Your task to perform on an android device: Is it going to rain today? Image 0: 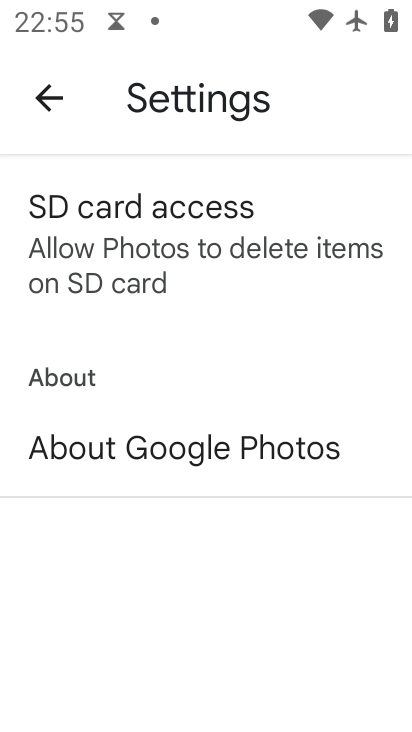
Step 0: press home button
Your task to perform on an android device: Is it going to rain today? Image 1: 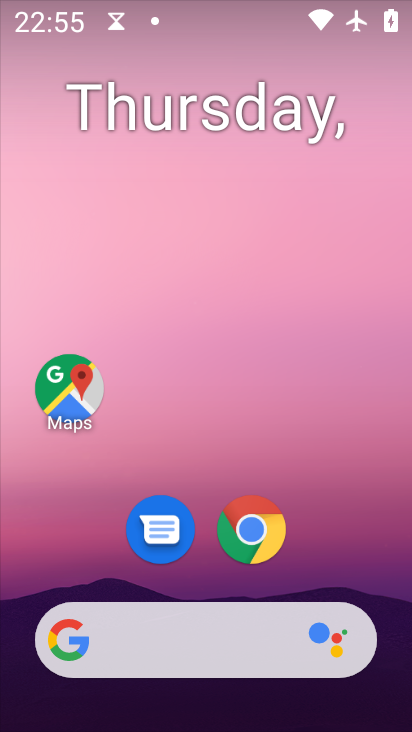
Step 1: click (201, 648)
Your task to perform on an android device: Is it going to rain today? Image 2: 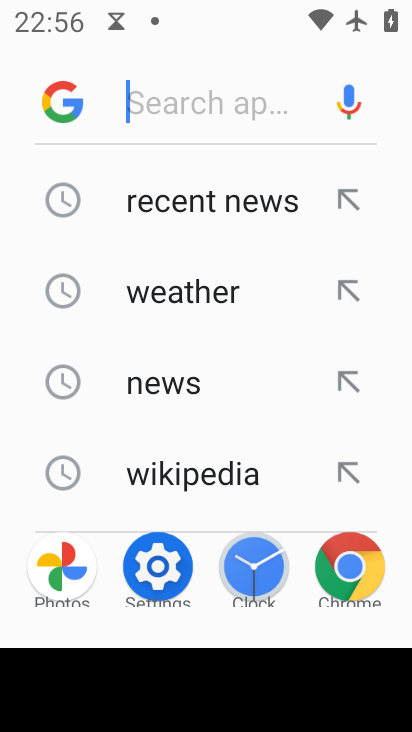
Step 2: type "is it going to rain today"
Your task to perform on an android device: Is it going to rain today? Image 3: 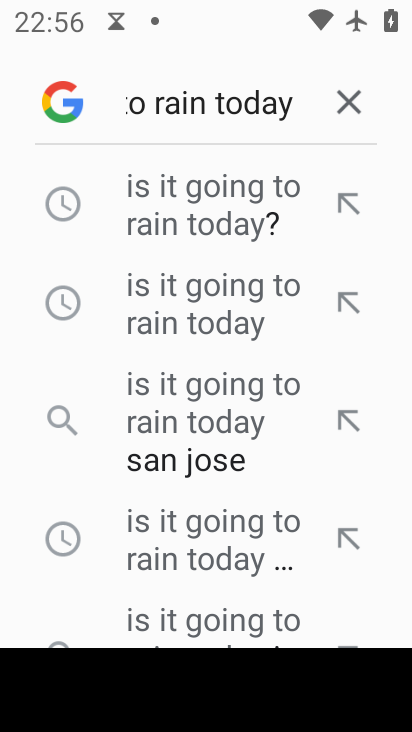
Step 3: click (181, 211)
Your task to perform on an android device: Is it going to rain today? Image 4: 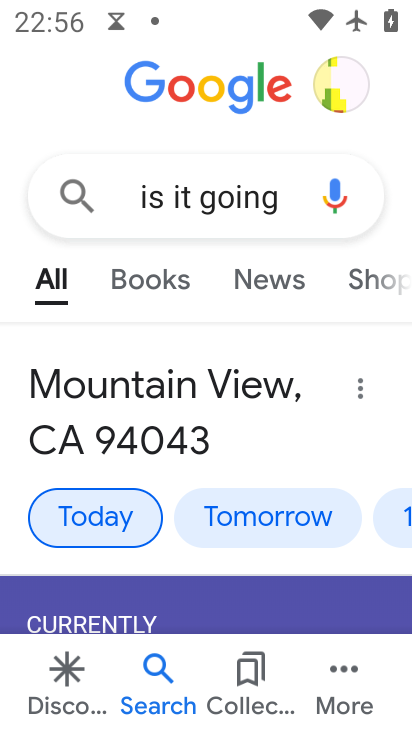
Step 4: task complete